Your task to perform on an android device: Go to CNN.com Image 0: 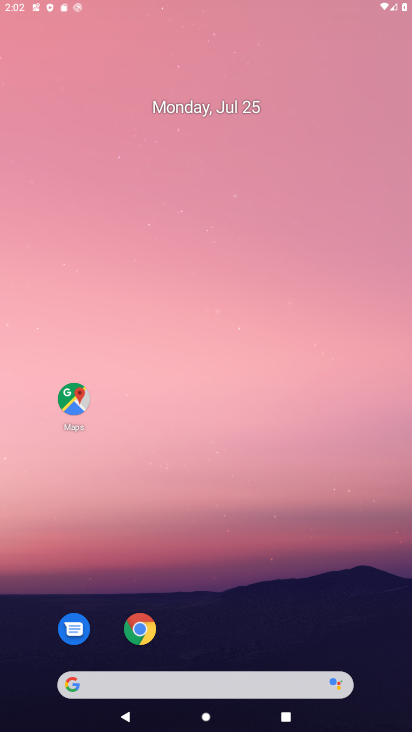
Step 0: drag from (224, 643) to (232, 165)
Your task to perform on an android device: Go to CNN.com Image 1: 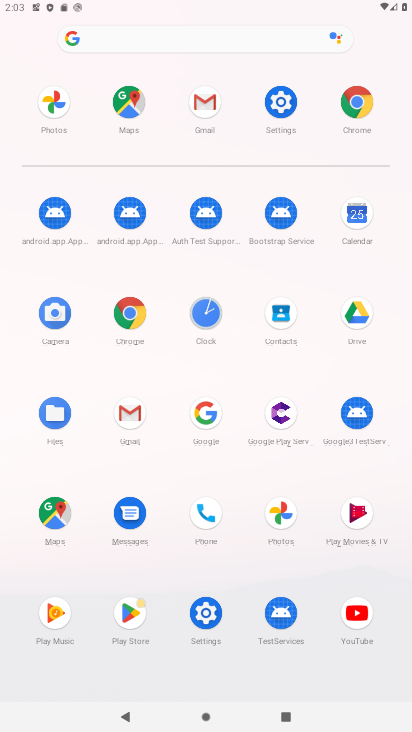
Step 1: click (204, 36)
Your task to perform on an android device: Go to CNN.com Image 2: 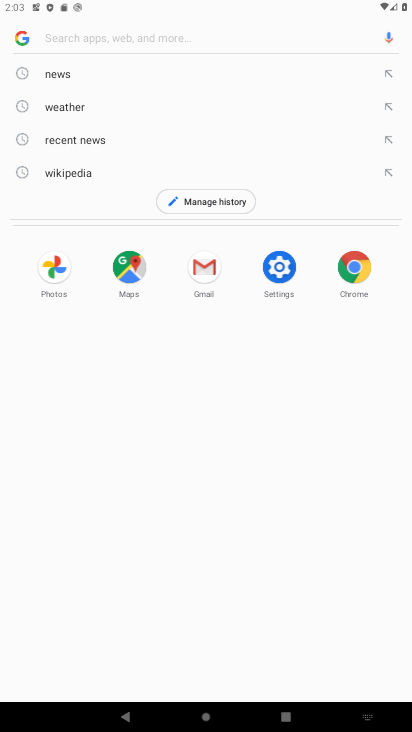
Step 2: type "cnn.com"
Your task to perform on an android device: Go to CNN.com Image 3: 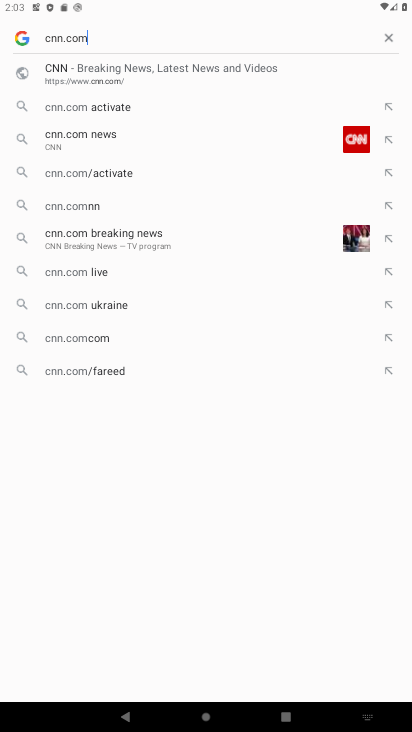
Step 3: click (69, 73)
Your task to perform on an android device: Go to CNN.com Image 4: 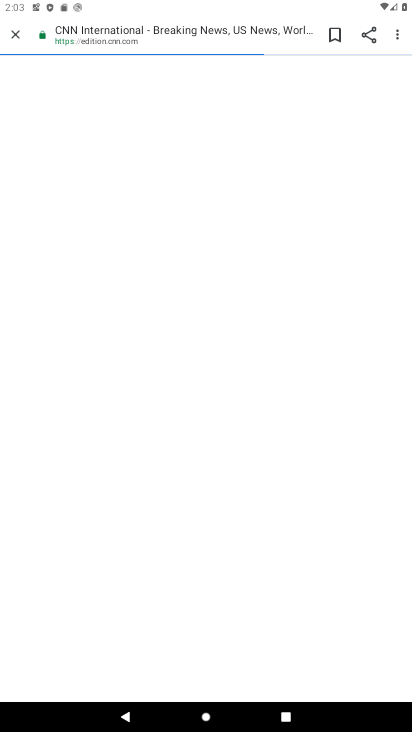
Step 4: task complete